Your task to perform on an android device: Open Chrome and go to the settings page Image 0: 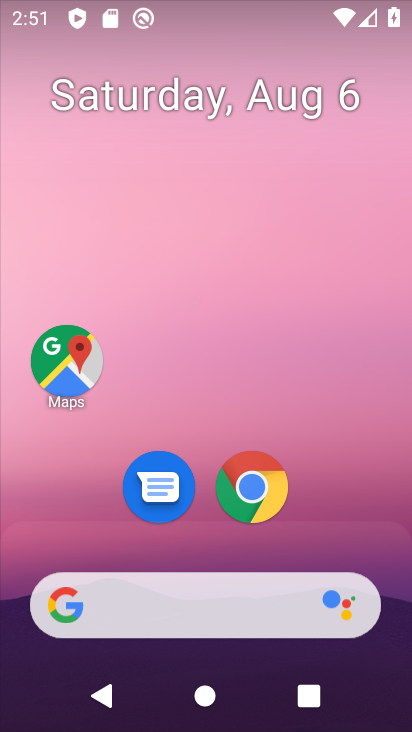
Step 0: click (265, 503)
Your task to perform on an android device: Open Chrome and go to the settings page Image 1: 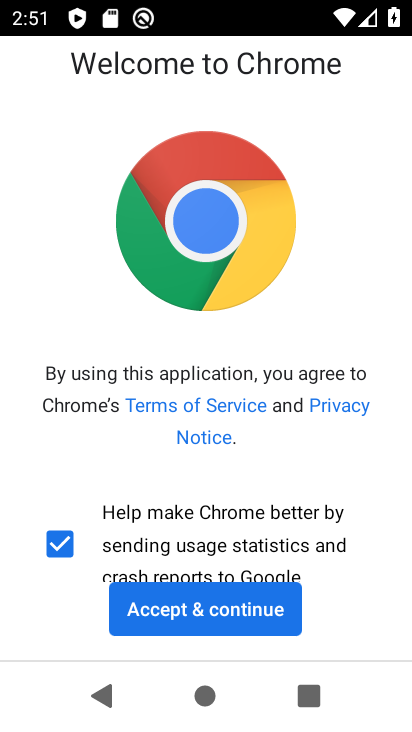
Step 1: click (208, 608)
Your task to perform on an android device: Open Chrome and go to the settings page Image 2: 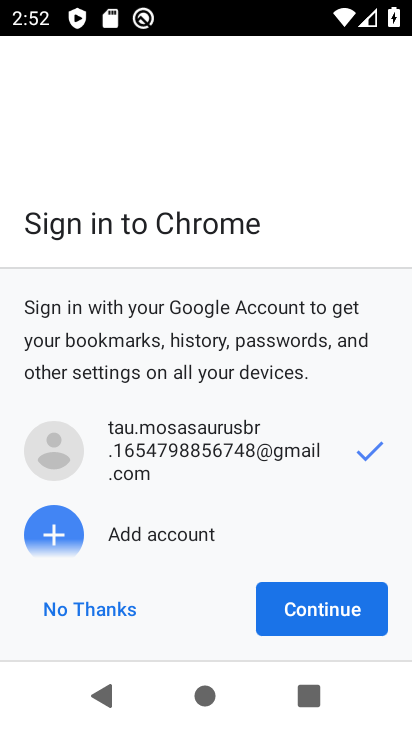
Step 2: click (306, 629)
Your task to perform on an android device: Open Chrome and go to the settings page Image 3: 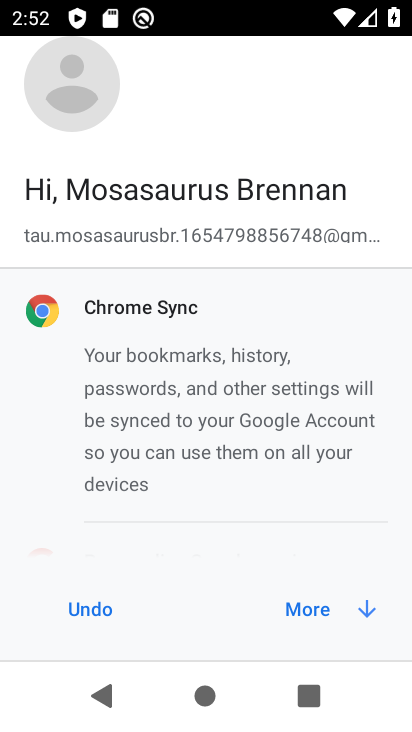
Step 3: click (308, 595)
Your task to perform on an android device: Open Chrome and go to the settings page Image 4: 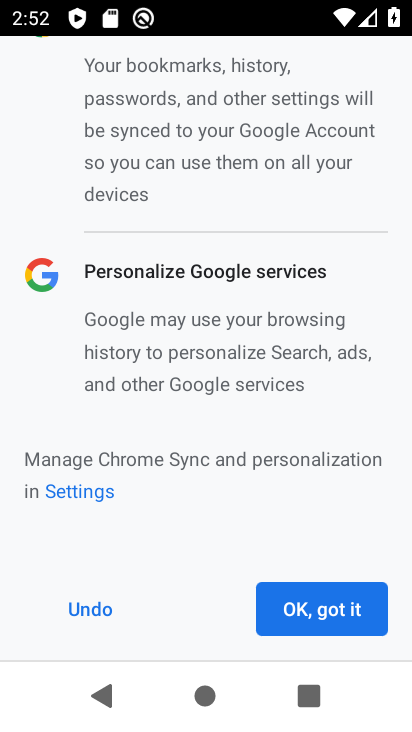
Step 4: click (325, 609)
Your task to perform on an android device: Open Chrome and go to the settings page Image 5: 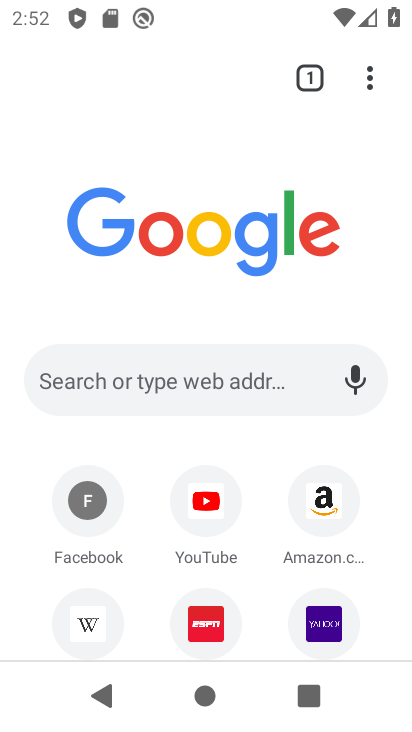
Step 5: task complete